Your task to perform on an android device: all mails in gmail Image 0: 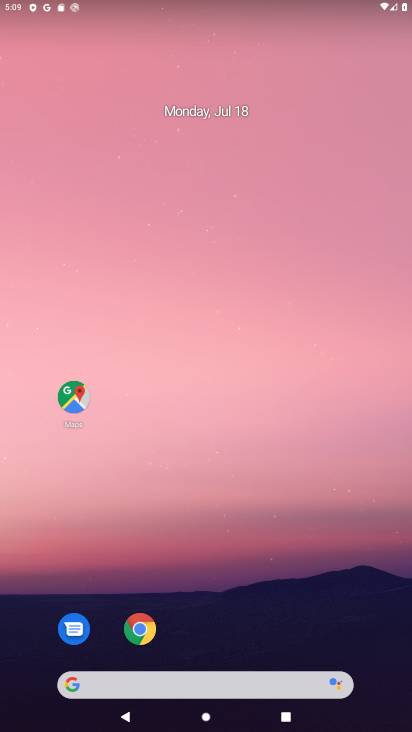
Step 0: drag from (275, 592) to (244, 8)
Your task to perform on an android device: all mails in gmail Image 1: 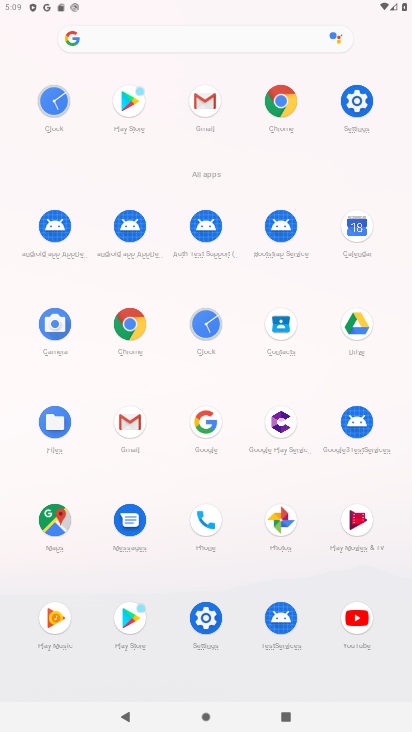
Step 1: click (202, 98)
Your task to perform on an android device: all mails in gmail Image 2: 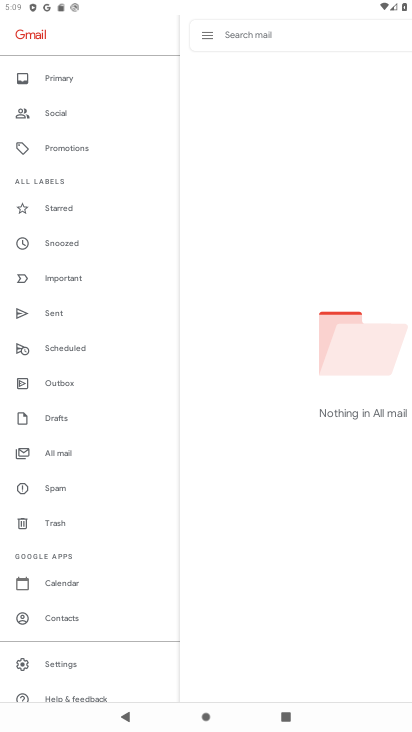
Step 2: click (66, 451)
Your task to perform on an android device: all mails in gmail Image 3: 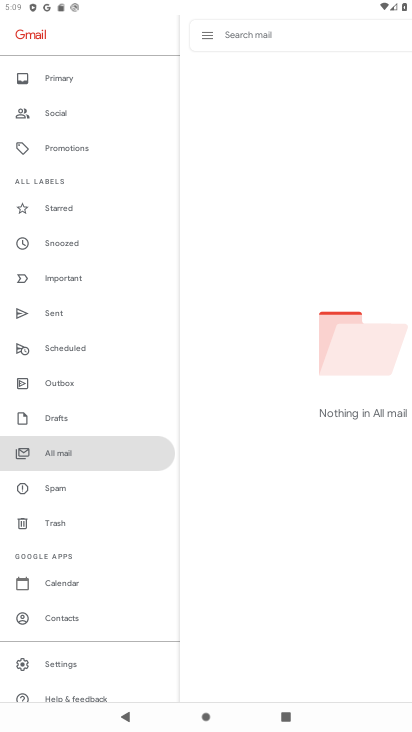
Step 3: task complete